Your task to perform on an android device: What is the recent news? Image 0: 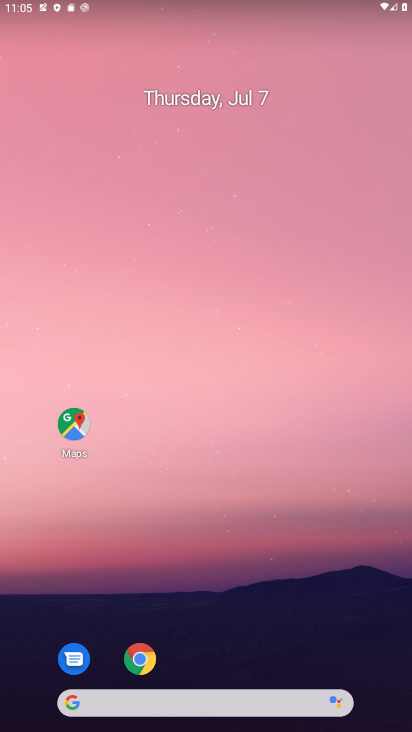
Step 0: press home button
Your task to perform on an android device: What is the recent news? Image 1: 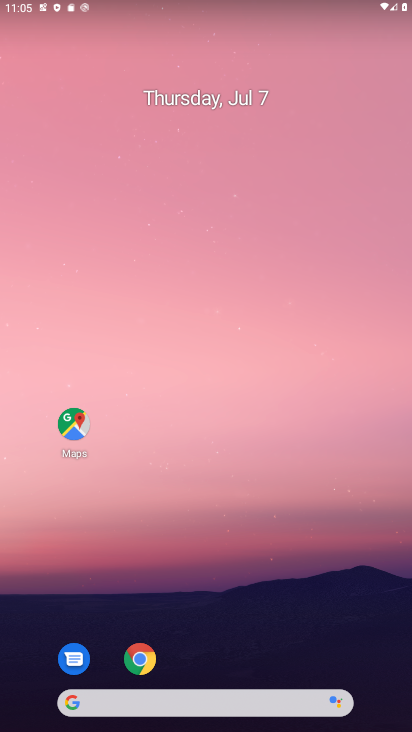
Step 1: task complete